Your task to perform on an android device: Where can I buy a nice beach sandals? Image 0: 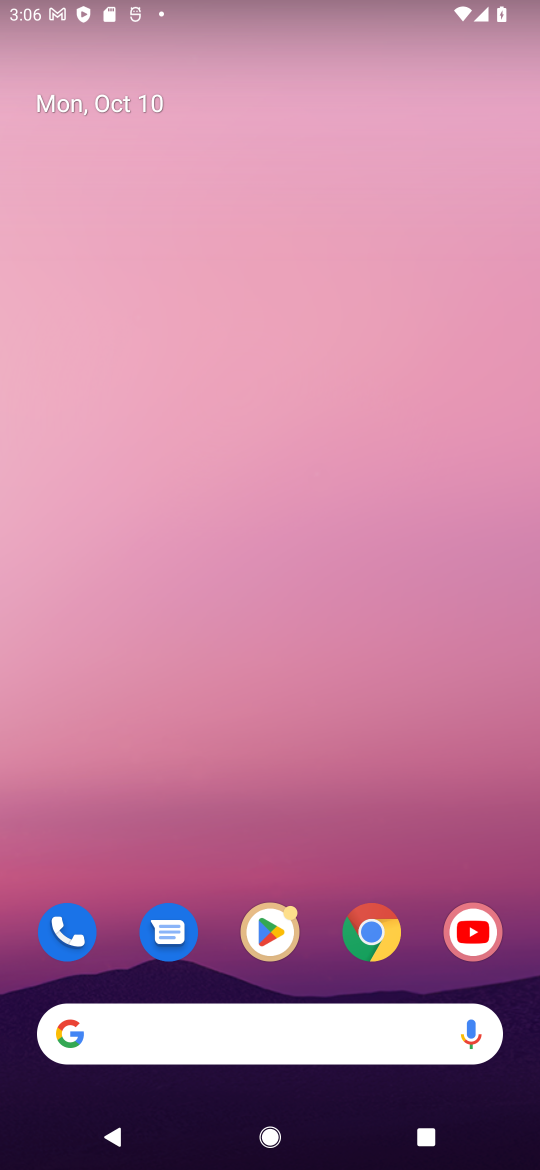
Step 0: press home button
Your task to perform on an android device: Where can I buy a nice beach sandals? Image 1: 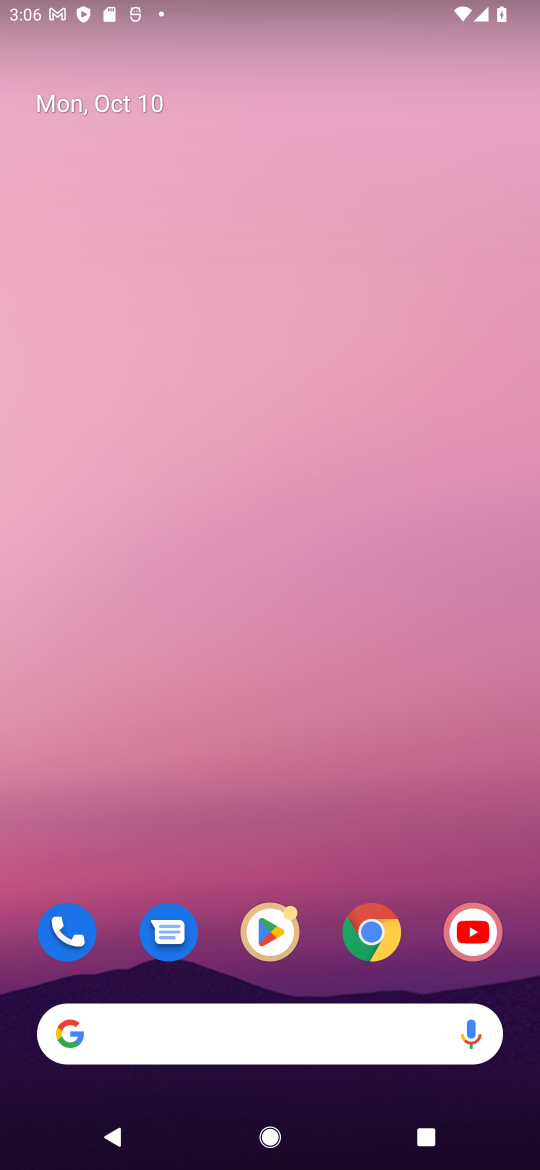
Step 1: click (306, 1036)
Your task to perform on an android device: Where can I buy a nice beach sandals? Image 2: 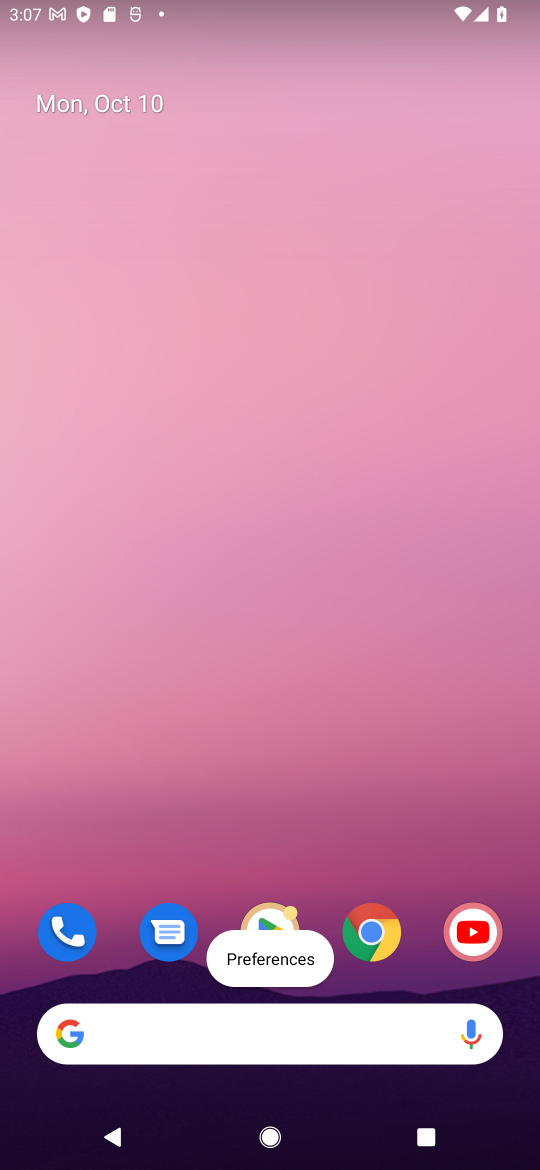
Step 2: click (127, 1023)
Your task to perform on an android device: Where can I buy a nice beach sandals? Image 3: 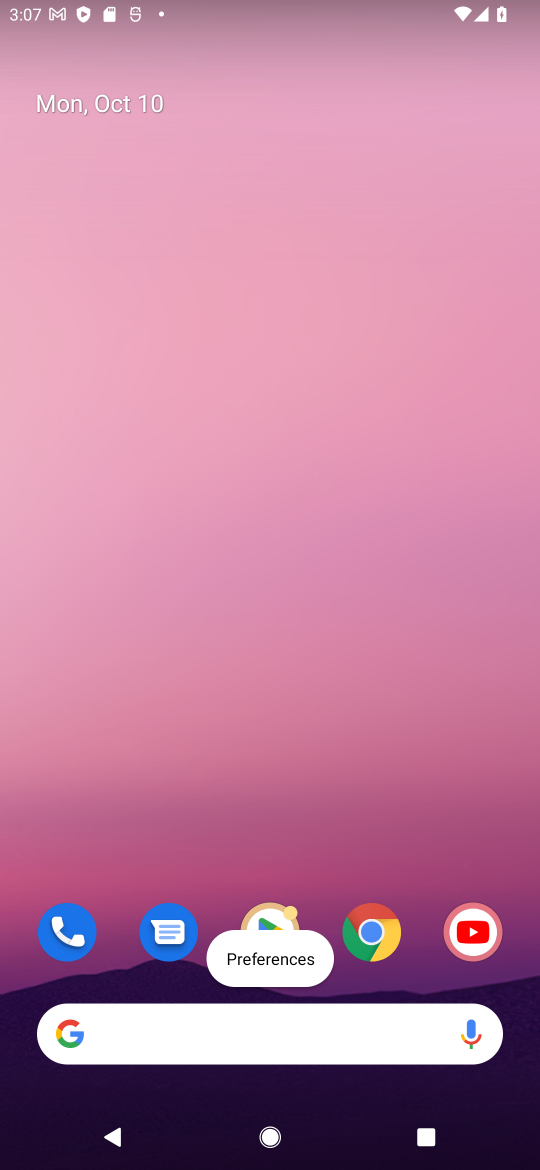
Step 3: click (147, 1028)
Your task to perform on an android device: Where can I buy a nice beach sandals? Image 4: 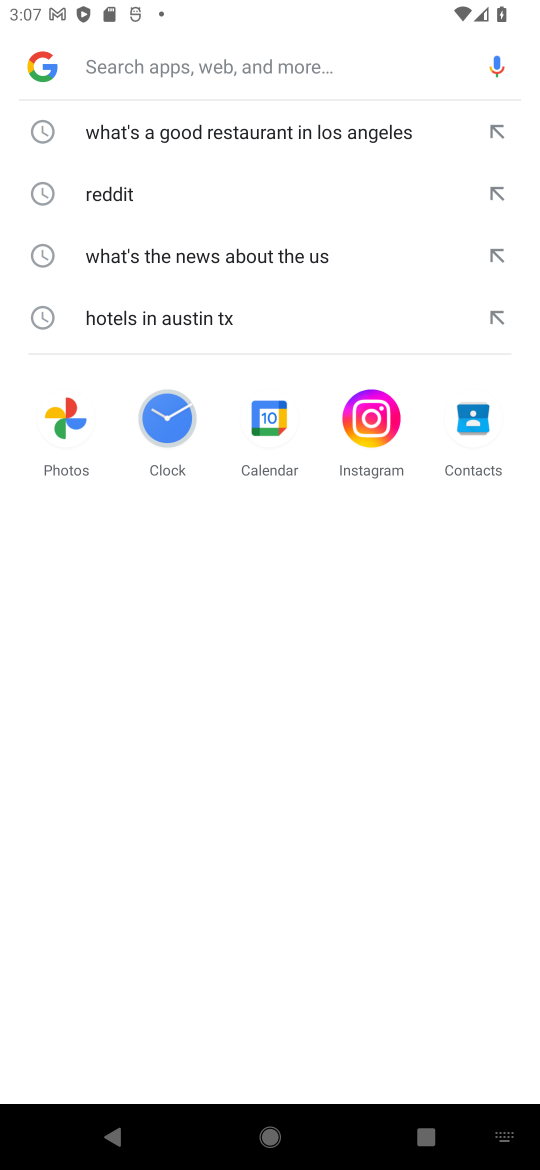
Step 4: type "Where can I buy a nice beach sandals"
Your task to perform on an android device: Where can I buy a nice beach sandals? Image 5: 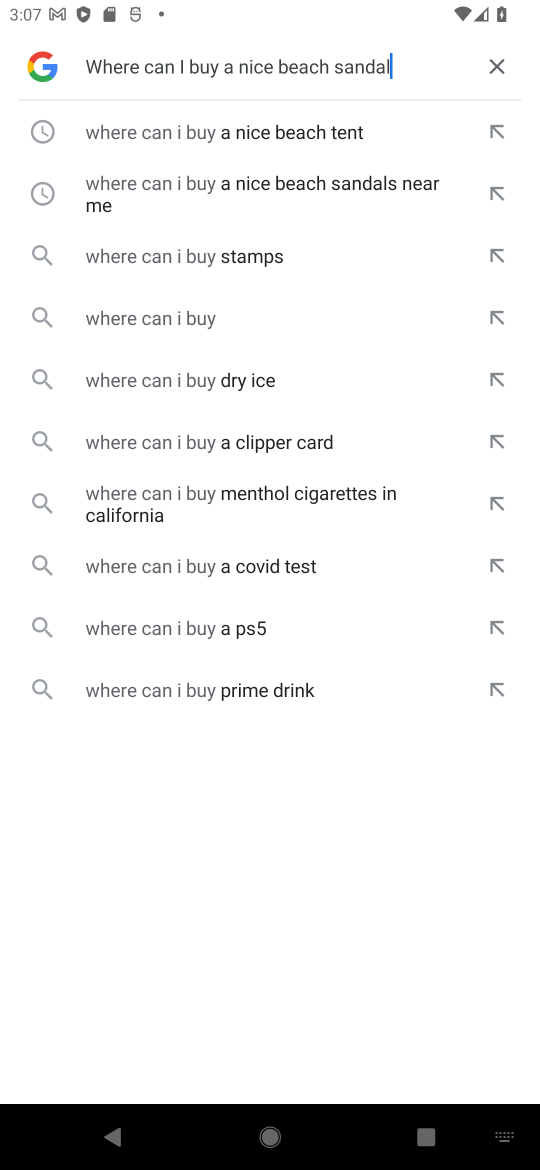
Step 5: press enter
Your task to perform on an android device: Where can I buy a nice beach sandals? Image 6: 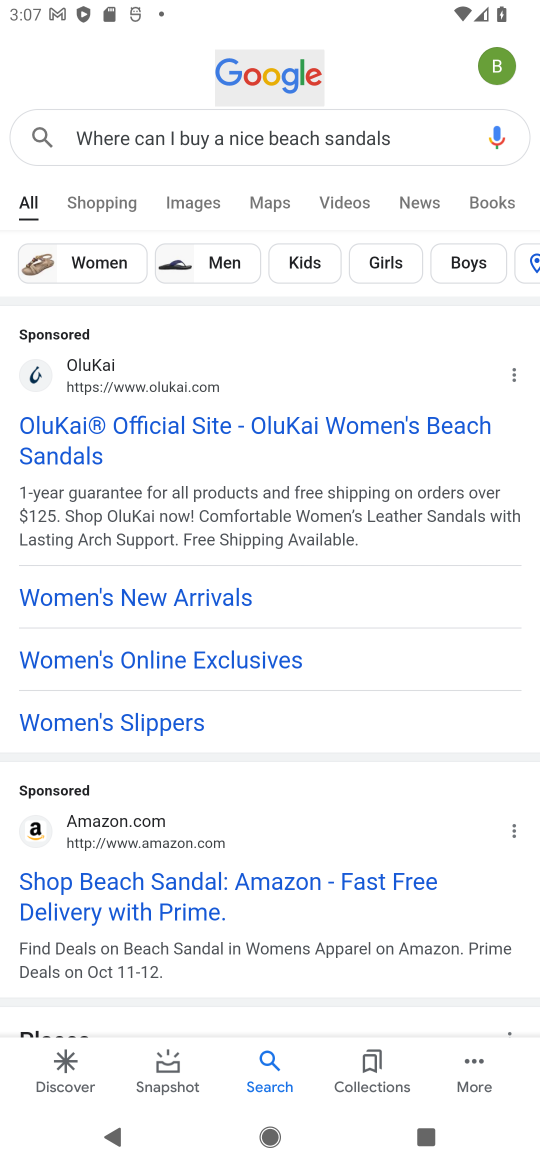
Step 6: click (368, 429)
Your task to perform on an android device: Where can I buy a nice beach sandals? Image 7: 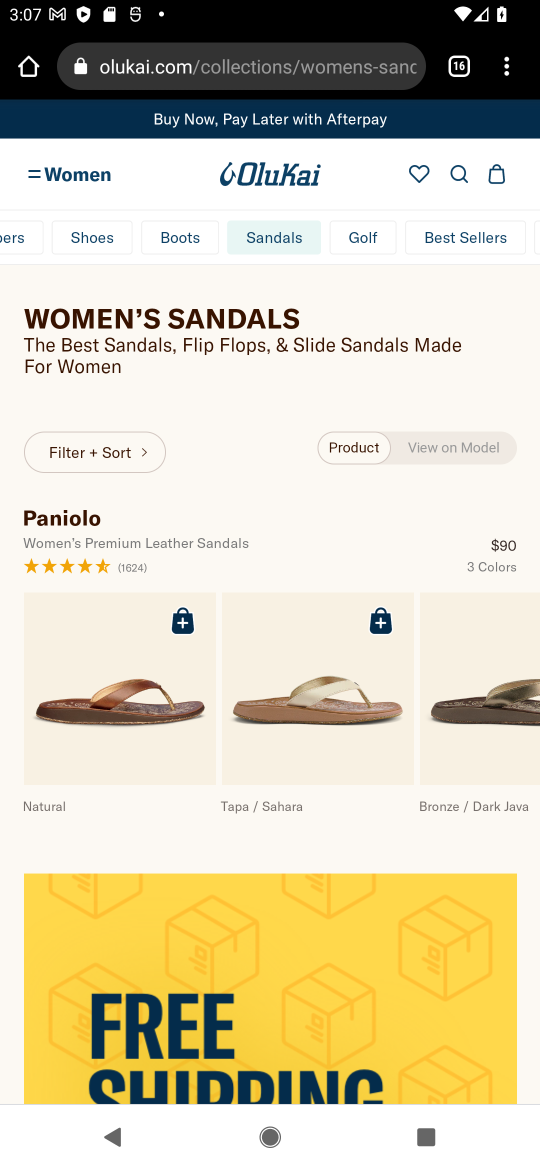
Step 7: task complete